Your task to perform on an android device: turn off picture-in-picture Image 0: 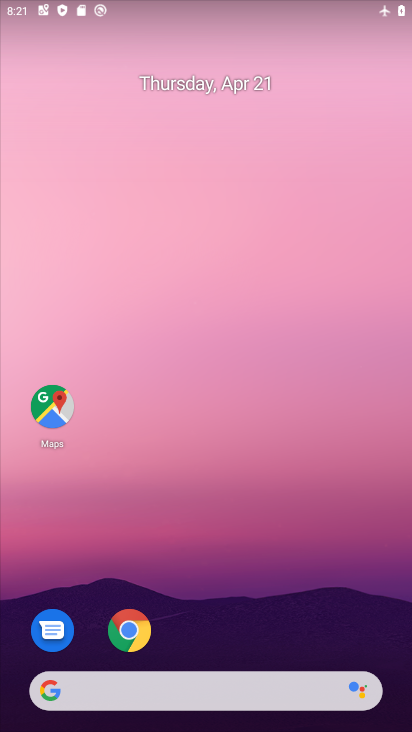
Step 0: click (126, 621)
Your task to perform on an android device: turn off picture-in-picture Image 1: 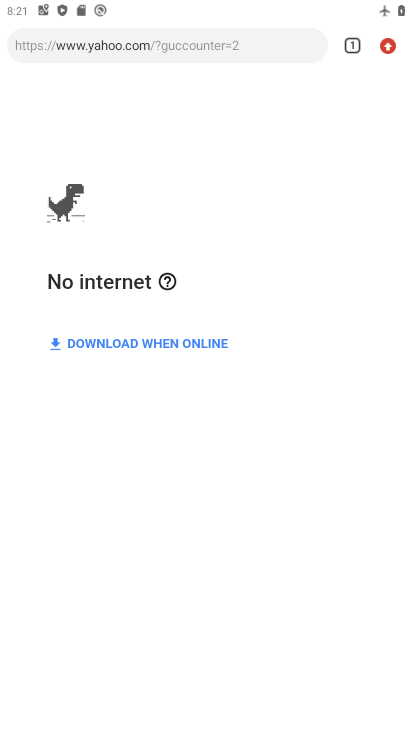
Step 1: press home button
Your task to perform on an android device: turn off picture-in-picture Image 2: 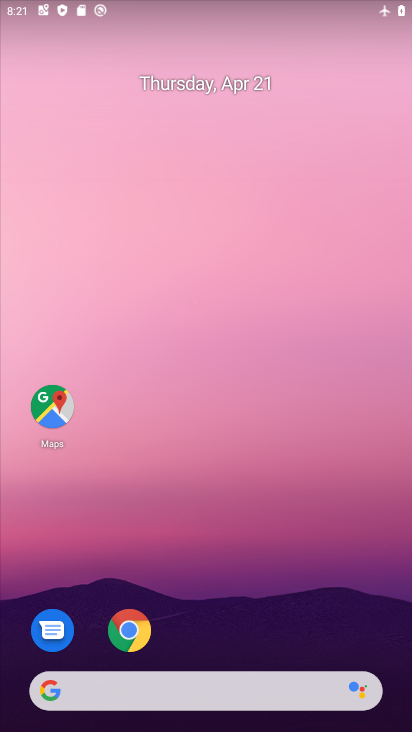
Step 2: click (137, 631)
Your task to perform on an android device: turn off picture-in-picture Image 3: 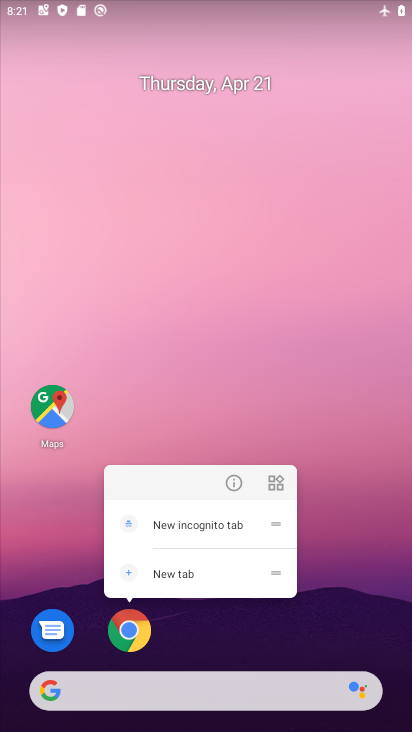
Step 3: click (231, 481)
Your task to perform on an android device: turn off picture-in-picture Image 4: 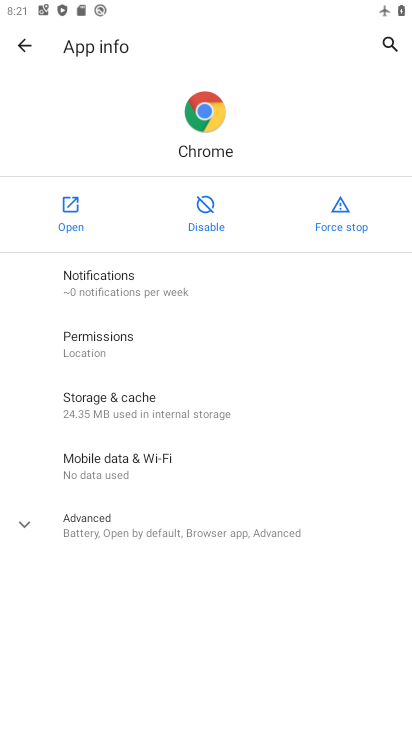
Step 4: click (125, 534)
Your task to perform on an android device: turn off picture-in-picture Image 5: 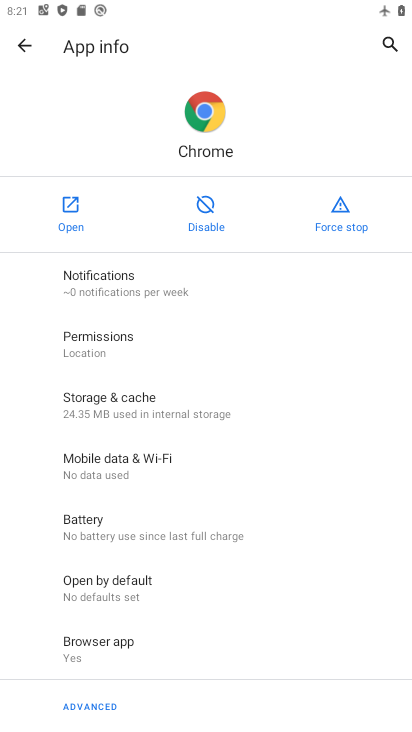
Step 5: drag from (133, 612) to (172, 329)
Your task to perform on an android device: turn off picture-in-picture Image 6: 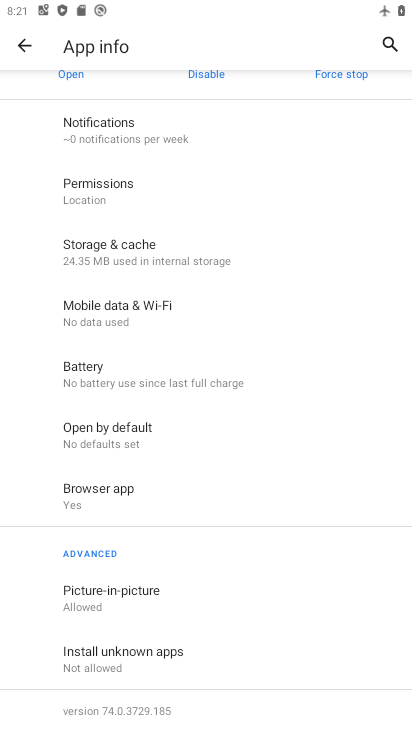
Step 6: click (137, 598)
Your task to perform on an android device: turn off picture-in-picture Image 7: 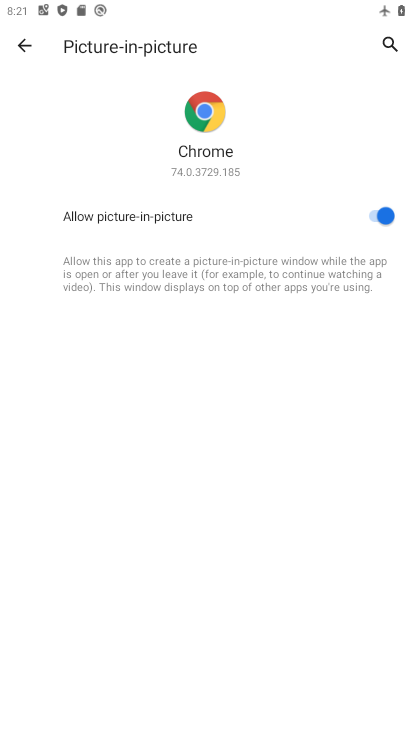
Step 7: click (365, 221)
Your task to perform on an android device: turn off picture-in-picture Image 8: 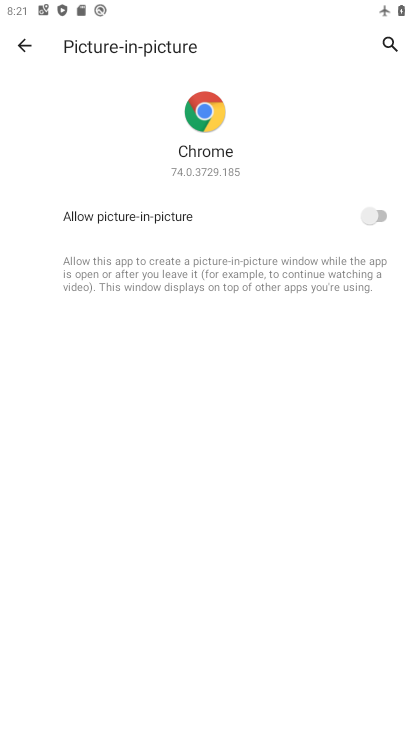
Step 8: task complete